Your task to perform on an android device: see sites visited before in the chrome app Image 0: 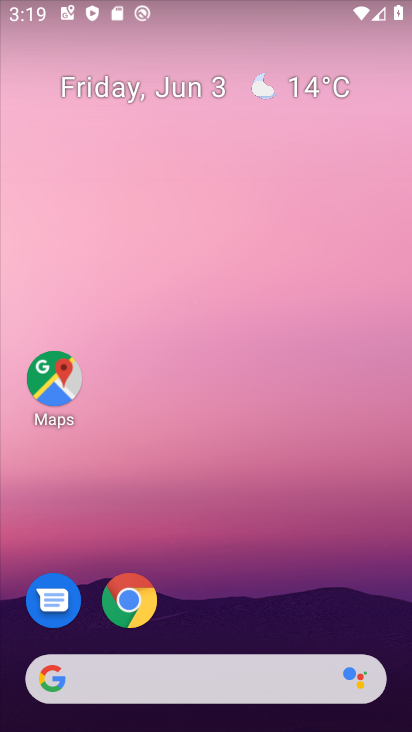
Step 0: click (136, 590)
Your task to perform on an android device: see sites visited before in the chrome app Image 1: 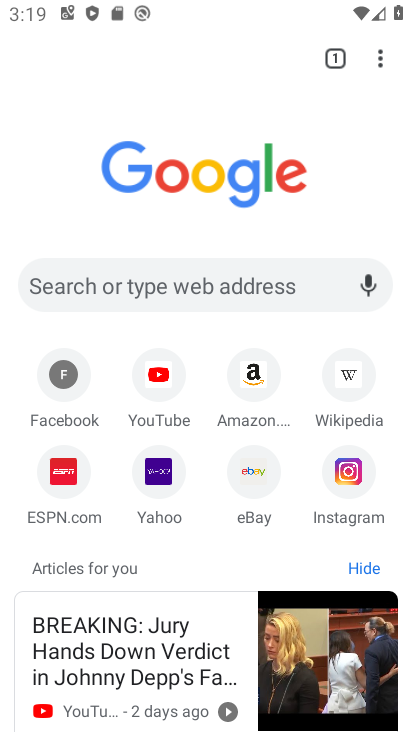
Step 1: click (370, 51)
Your task to perform on an android device: see sites visited before in the chrome app Image 2: 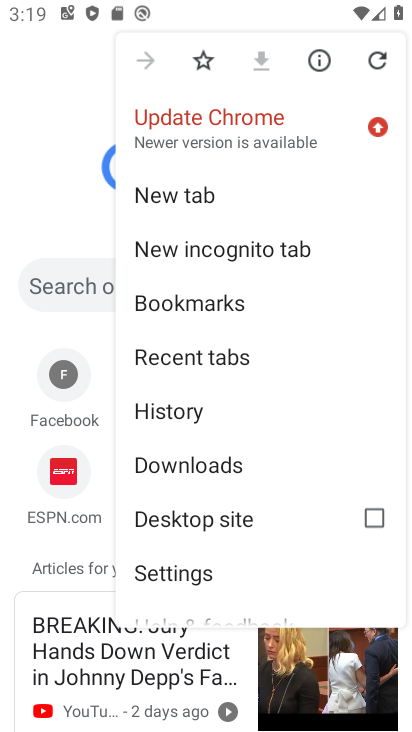
Step 2: click (235, 407)
Your task to perform on an android device: see sites visited before in the chrome app Image 3: 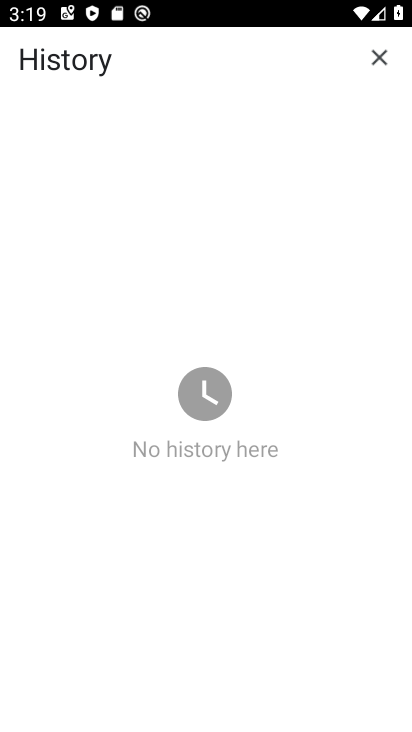
Step 3: task complete